Your task to perform on an android device: When is my next meeting? Image 0: 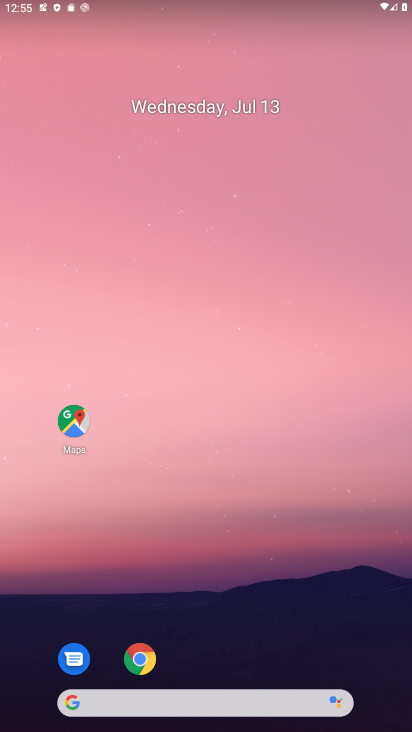
Step 0: drag from (233, 659) to (208, 74)
Your task to perform on an android device: When is my next meeting? Image 1: 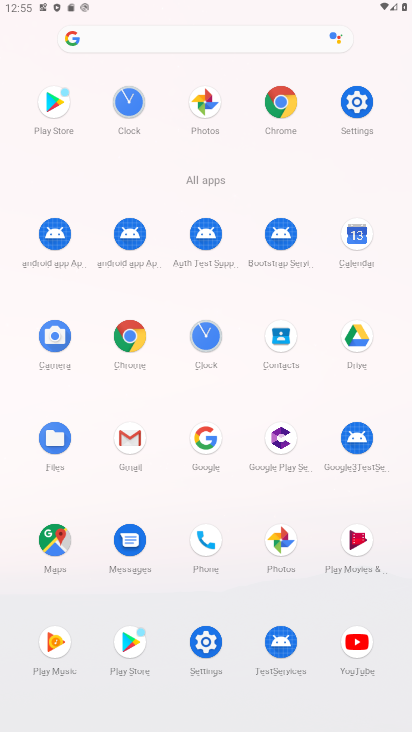
Step 1: click (352, 237)
Your task to perform on an android device: When is my next meeting? Image 2: 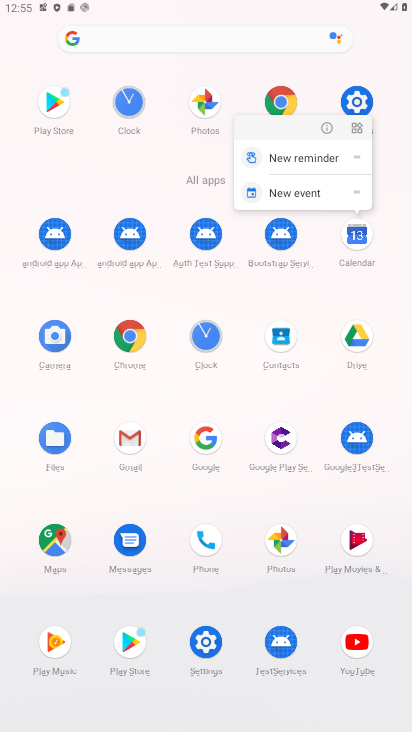
Step 2: click (320, 129)
Your task to perform on an android device: When is my next meeting? Image 3: 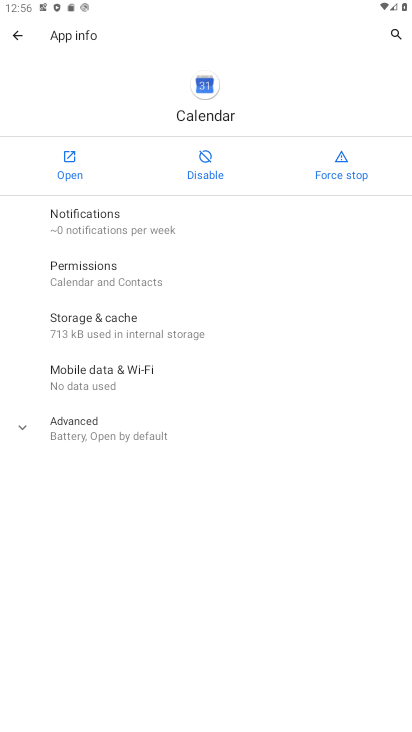
Step 3: click (70, 169)
Your task to perform on an android device: When is my next meeting? Image 4: 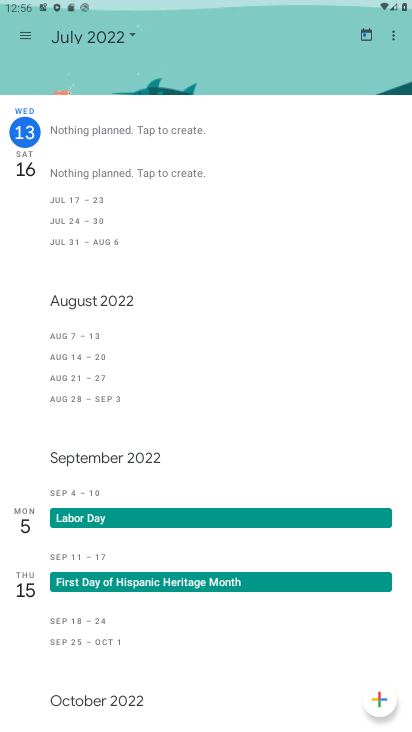
Step 4: drag from (201, 461) to (217, 271)
Your task to perform on an android device: When is my next meeting? Image 5: 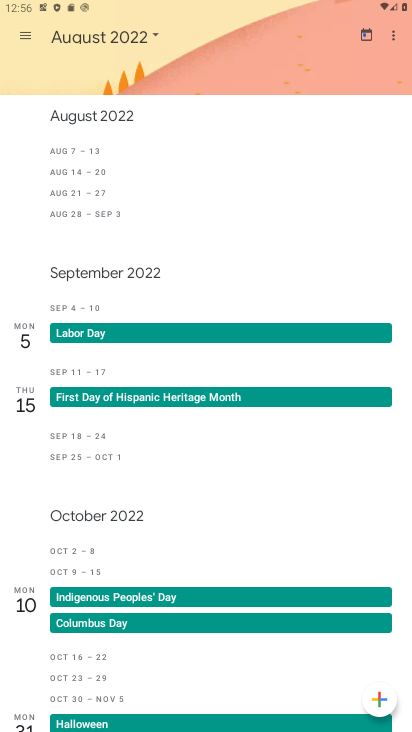
Step 5: drag from (213, 473) to (226, 290)
Your task to perform on an android device: When is my next meeting? Image 6: 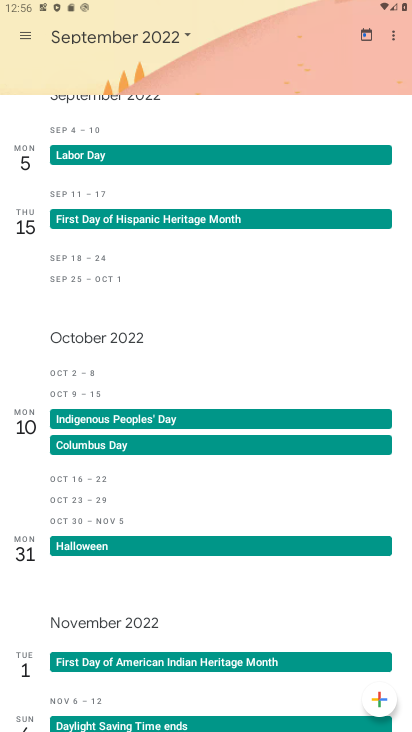
Step 6: drag from (209, 245) to (318, 645)
Your task to perform on an android device: When is my next meeting? Image 7: 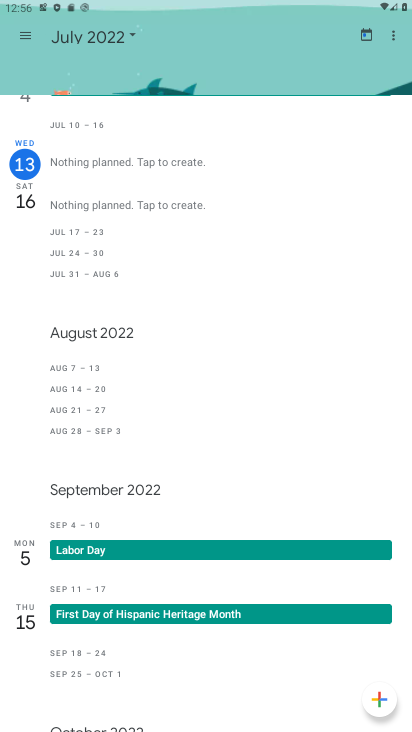
Step 7: drag from (192, 570) to (293, 8)
Your task to perform on an android device: When is my next meeting? Image 8: 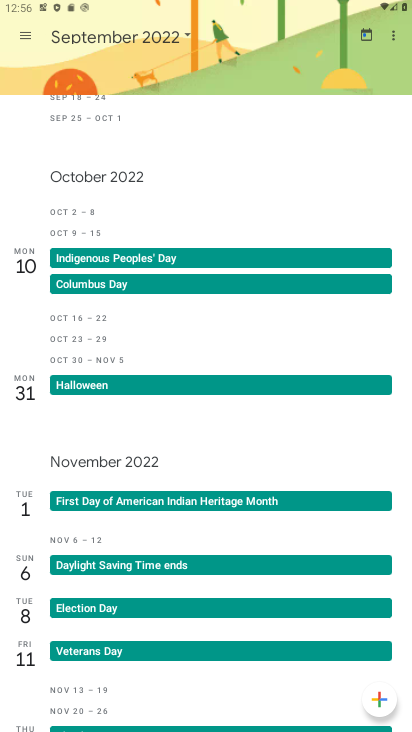
Step 8: drag from (216, 259) to (328, 605)
Your task to perform on an android device: When is my next meeting? Image 9: 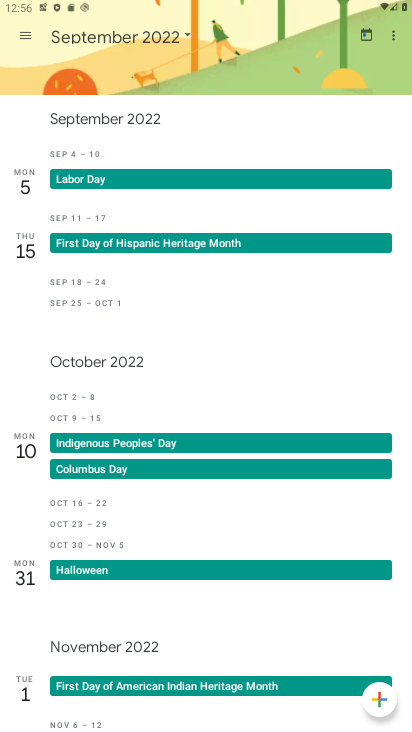
Step 9: click (112, 43)
Your task to perform on an android device: When is my next meeting? Image 10: 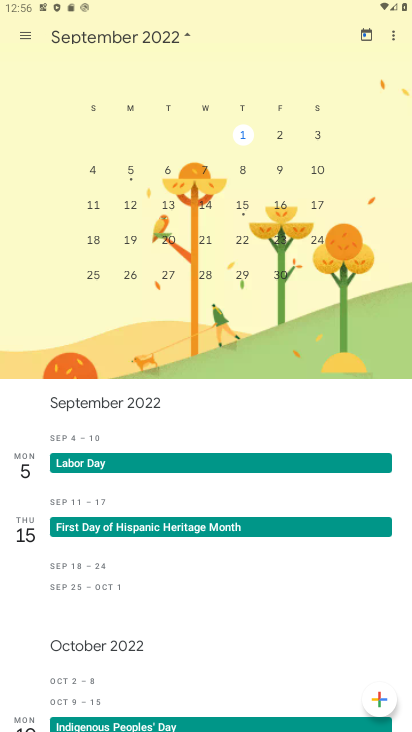
Step 10: click (358, 30)
Your task to perform on an android device: When is my next meeting? Image 11: 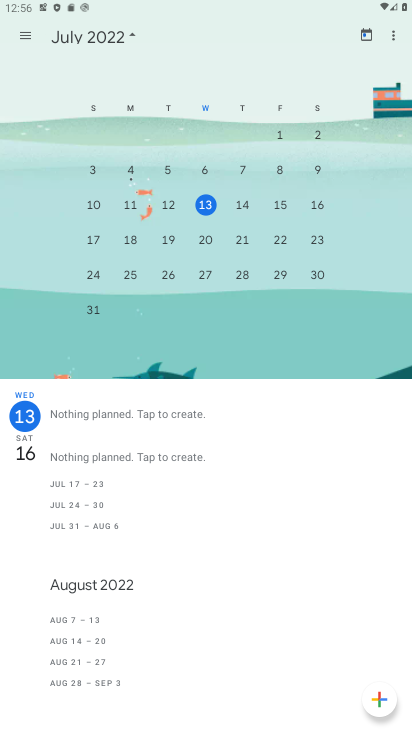
Step 11: click (212, 202)
Your task to perform on an android device: When is my next meeting? Image 12: 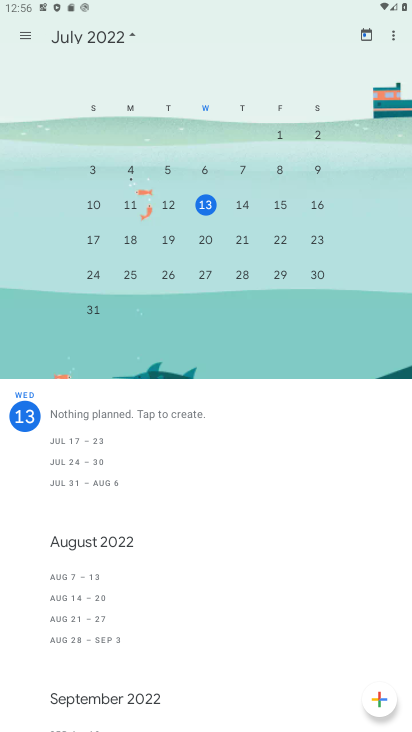
Step 12: task complete